Your task to perform on an android device: find snoozed emails in the gmail app Image 0: 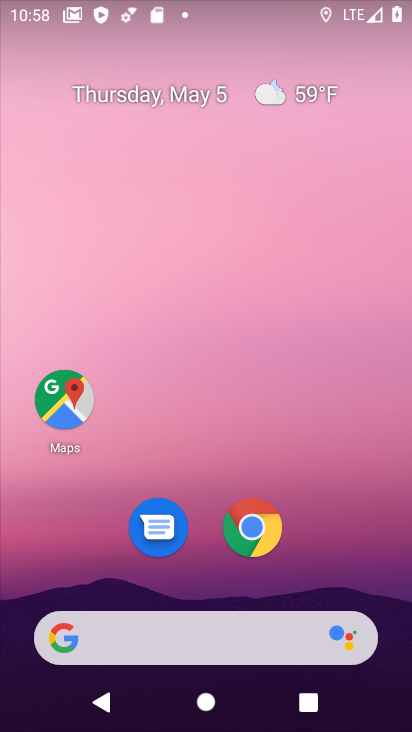
Step 0: drag from (219, 576) to (177, 59)
Your task to perform on an android device: find snoozed emails in the gmail app Image 1: 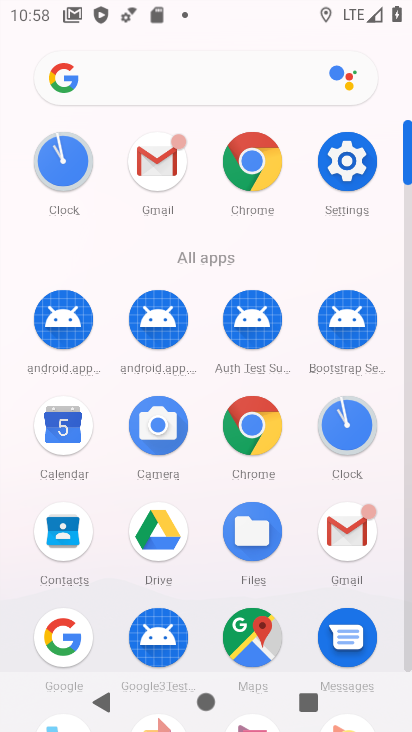
Step 1: click (339, 528)
Your task to perform on an android device: find snoozed emails in the gmail app Image 2: 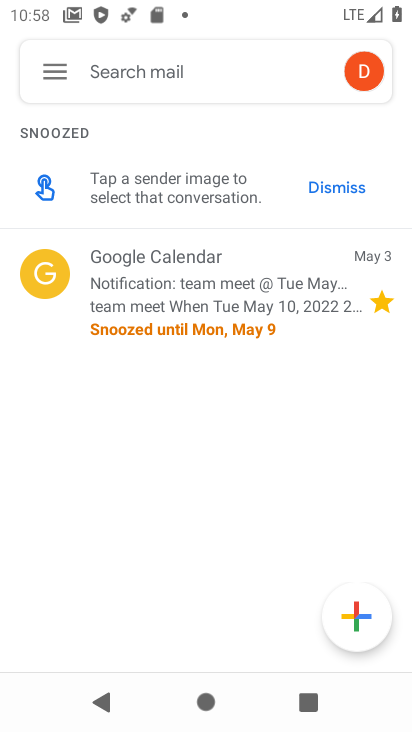
Step 2: task complete